Your task to perform on an android device: turn smart compose on in the gmail app Image 0: 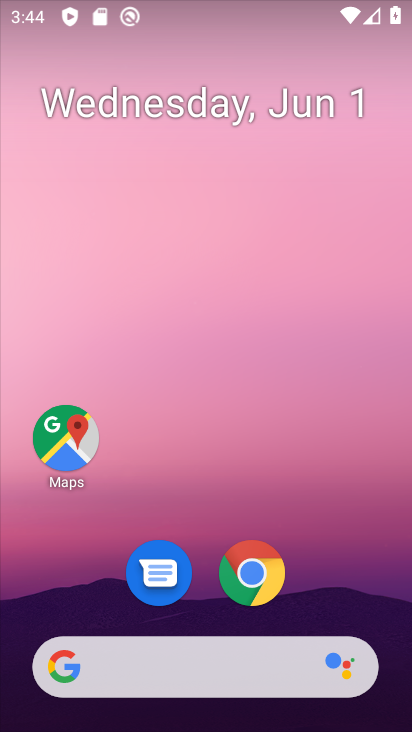
Step 0: drag from (85, 549) to (135, 283)
Your task to perform on an android device: turn smart compose on in the gmail app Image 1: 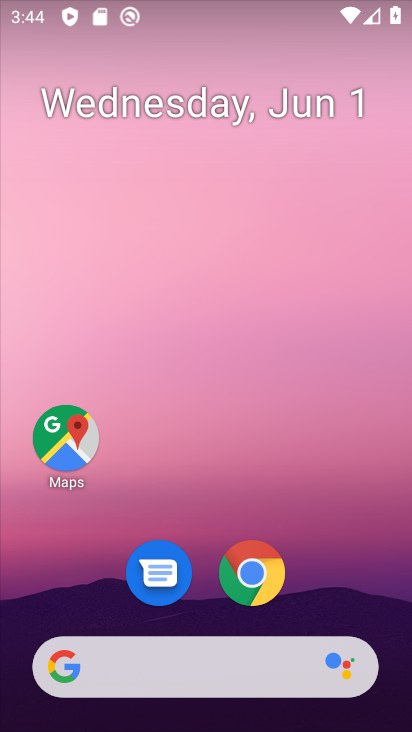
Step 1: drag from (80, 614) to (173, 149)
Your task to perform on an android device: turn smart compose on in the gmail app Image 2: 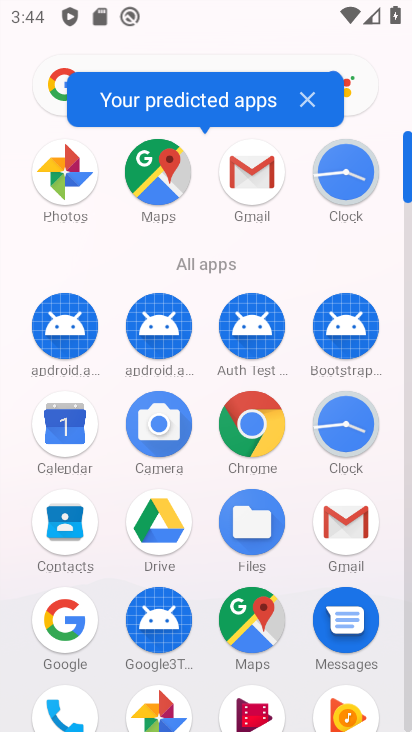
Step 2: drag from (181, 573) to (253, 306)
Your task to perform on an android device: turn smart compose on in the gmail app Image 3: 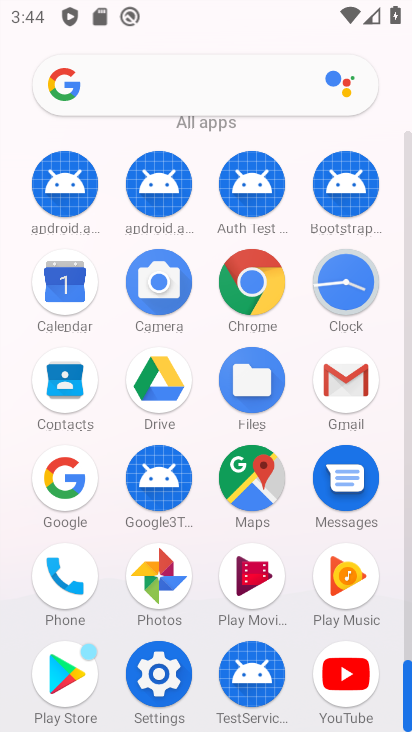
Step 3: click (350, 404)
Your task to perform on an android device: turn smart compose on in the gmail app Image 4: 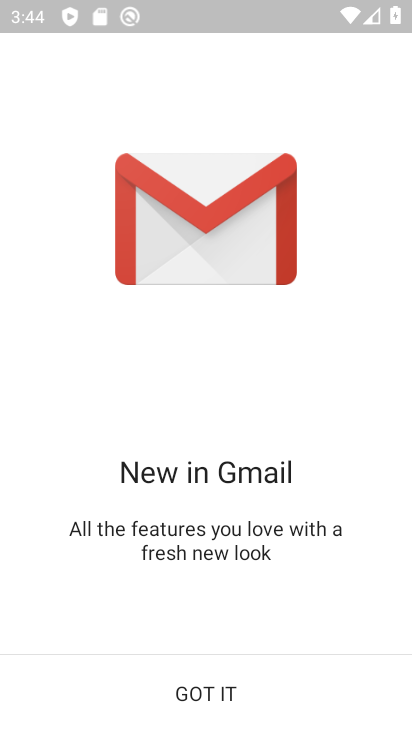
Step 4: click (228, 676)
Your task to perform on an android device: turn smart compose on in the gmail app Image 5: 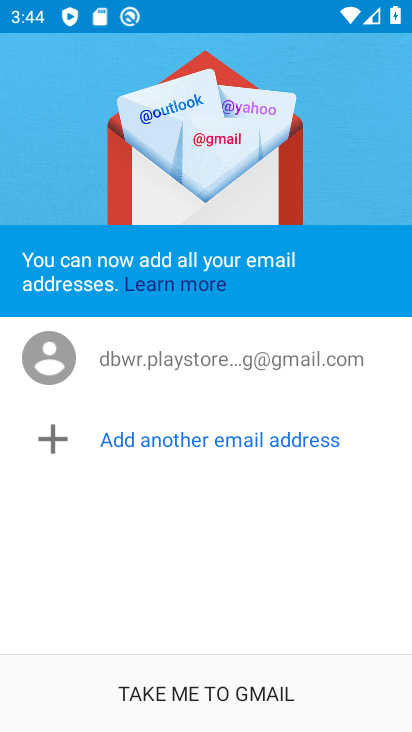
Step 5: click (289, 690)
Your task to perform on an android device: turn smart compose on in the gmail app Image 6: 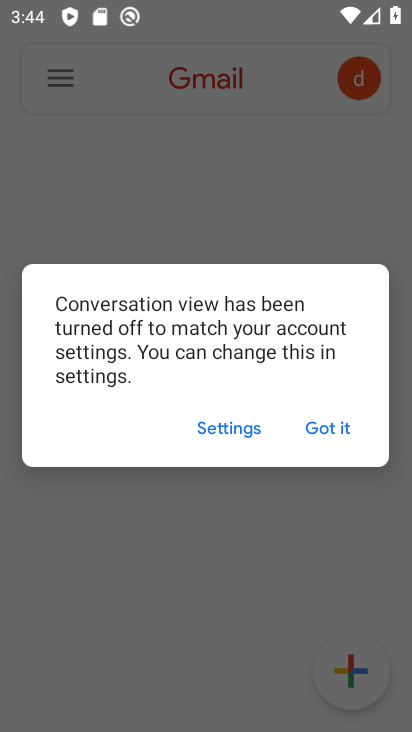
Step 6: click (344, 441)
Your task to perform on an android device: turn smart compose on in the gmail app Image 7: 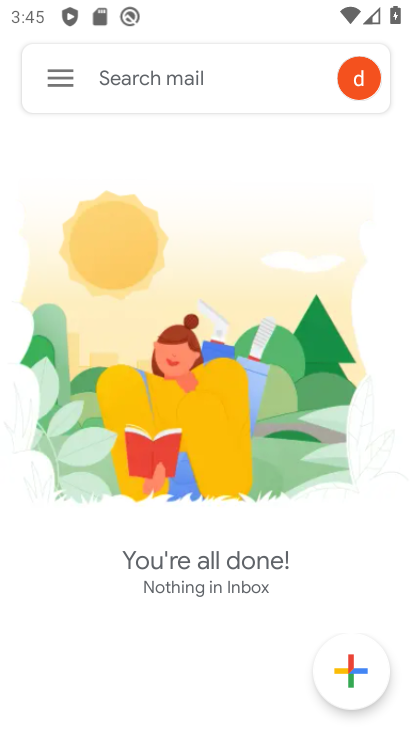
Step 7: click (83, 100)
Your task to perform on an android device: turn smart compose on in the gmail app Image 8: 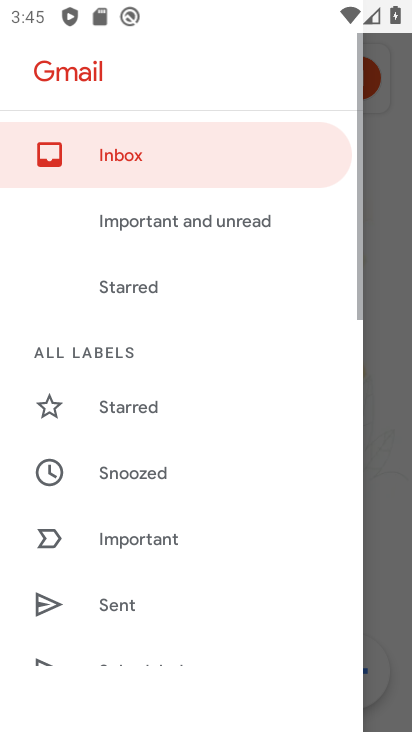
Step 8: drag from (132, 623) to (238, 201)
Your task to perform on an android device: turn smart compose on in the gmail app Image 9: 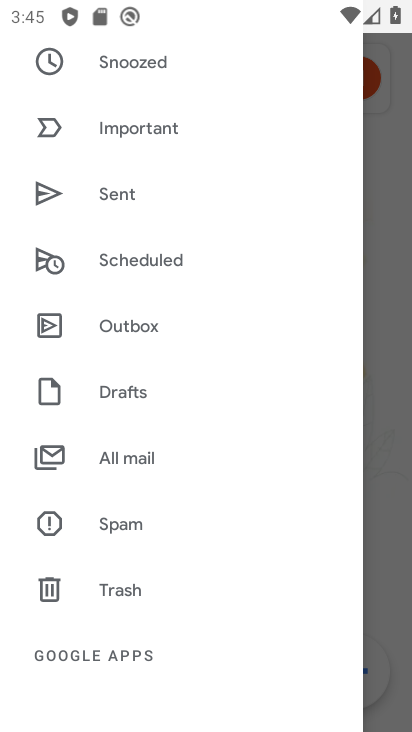
Step 9: drag from (164, 608) to (250, 215)
Your task to perform on an android device: turn smart compose on in the gmail app Image 10: 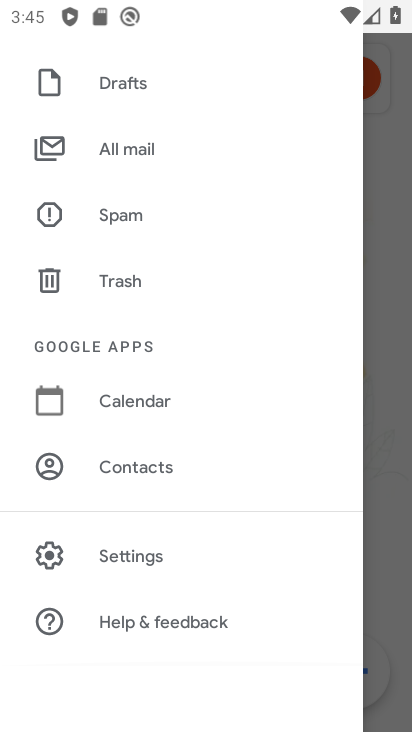
Step 10: click (145, 553)
Your task to perform on an android device: turn smart compose on in the gmail app Image 11: 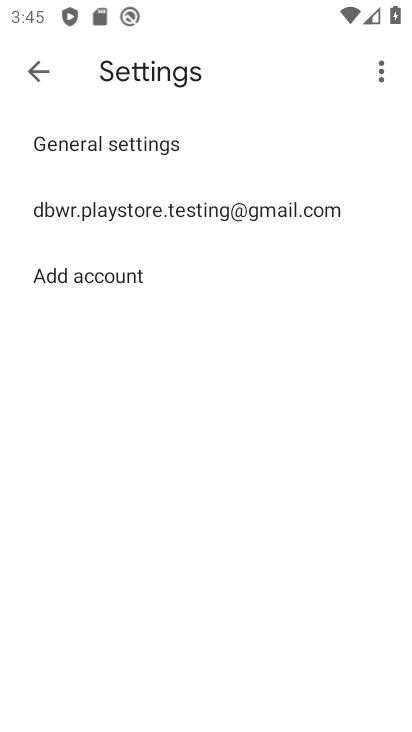
Step 11: click (270, 213)
Your task to perform on an android device: turn smart compose on in the gmail app Image 12: 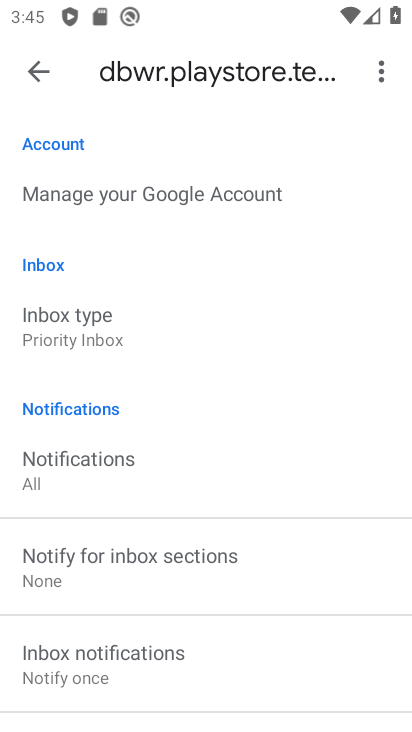
Step 12: task complete